Your task to perform on an android device: delete a single message in the gmail app Image 0: 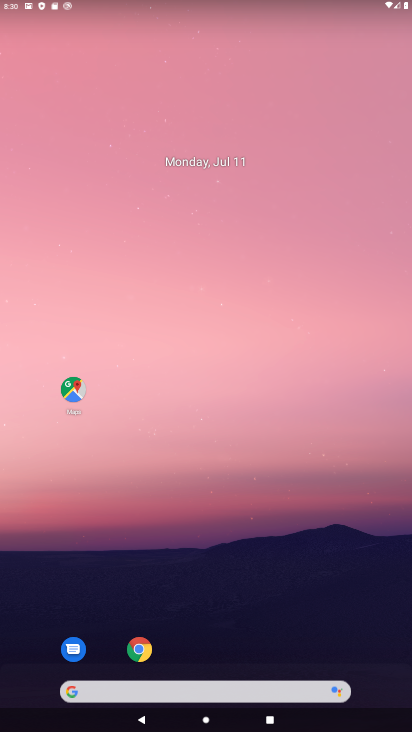
Step 0: drag from (210, 688) to (330, 85)
Your task to perform on an android device: delete a single message in the gmail app Image 1: 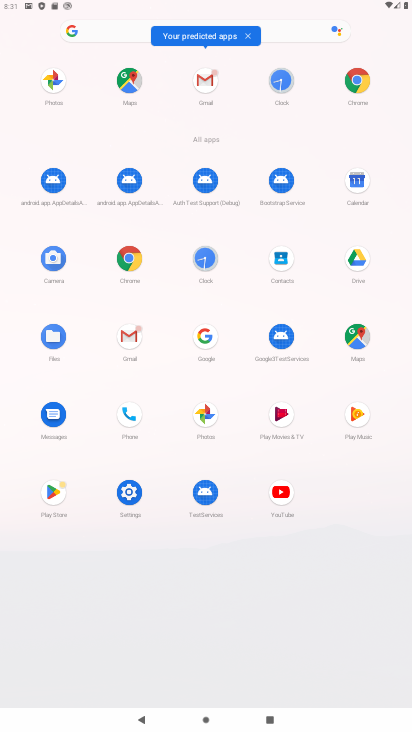
Step 1: click (206, 78)
Your task to perform on an android device: delete a single message in the gmail app Image 2: 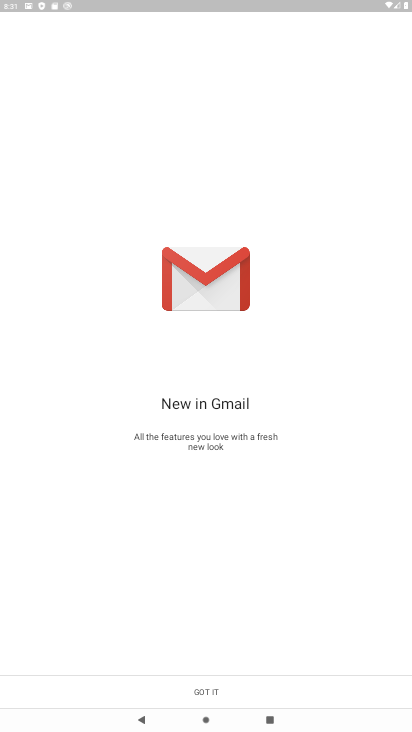
Step 2: click (220, 687)
Your task to perform on an android device: delete a single message in the gmail app Image 3: 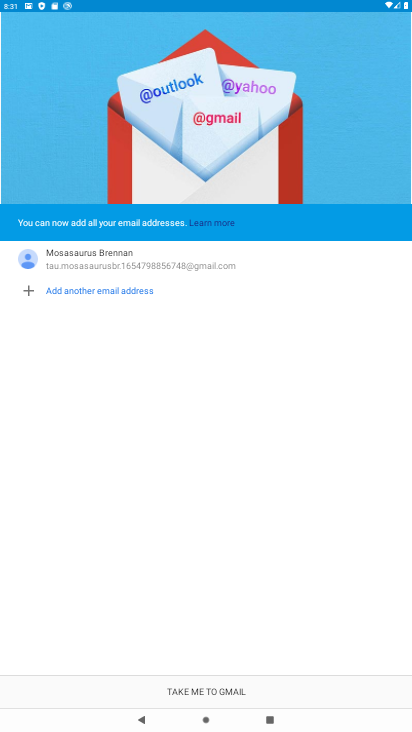
Step 3: click (220, 687)
Your task to perform on an android device: delete a single message in the gmail app Image 4: 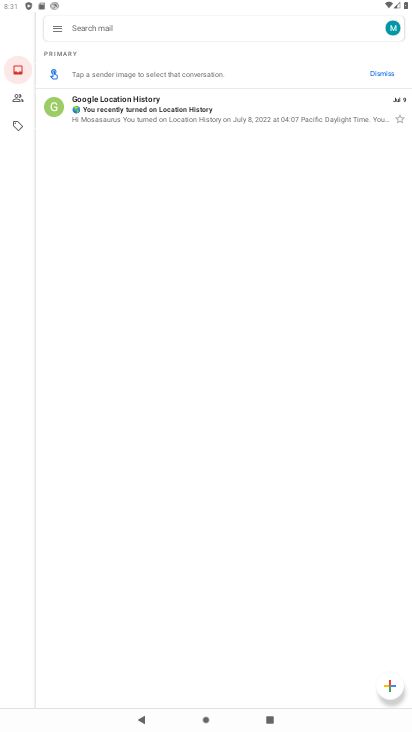
Step 4: click (170, 118)
Your task to perform on an android device: delete a single message in the gmail app Image 5: 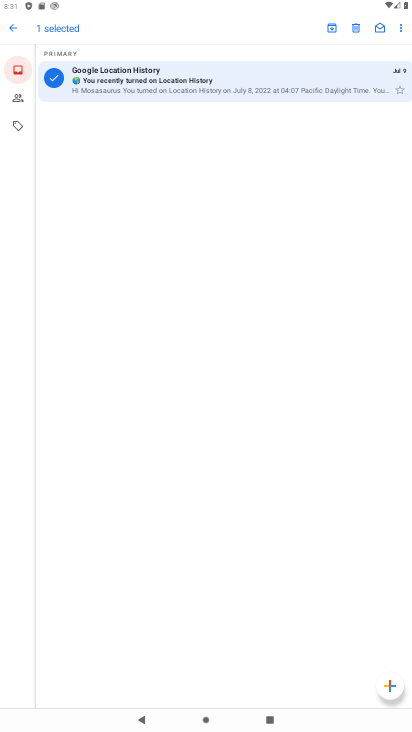
Step 5: click (354, 26)
Your task to perform on an android device: delete a single message in the gmail app Image 6: 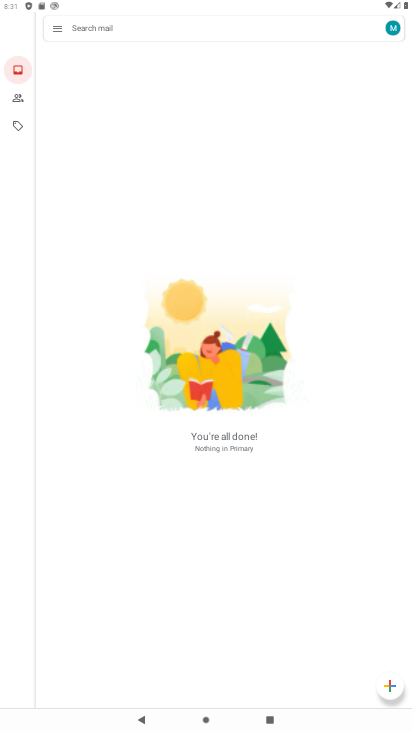
Step 6: task complete